Your task to perform on an android device: Search for "lenovo thinkpad" on newegg, select the first entry, and add it to the cart. Image 0: 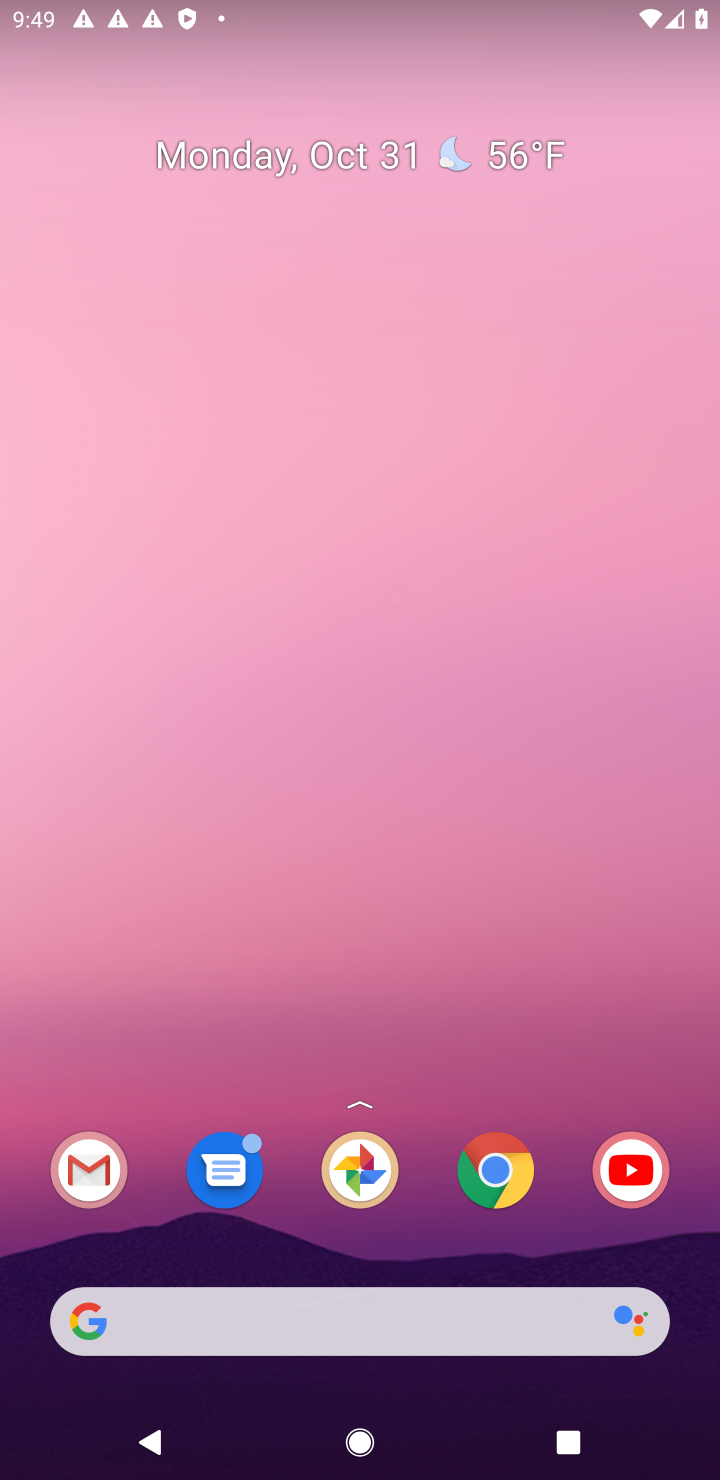
Step 0: click (346, 1299)
Your task to perform on an android device: Search for "lenovo thinkpad" on newegg, select the first entry, and add it to the cart. Image 1: 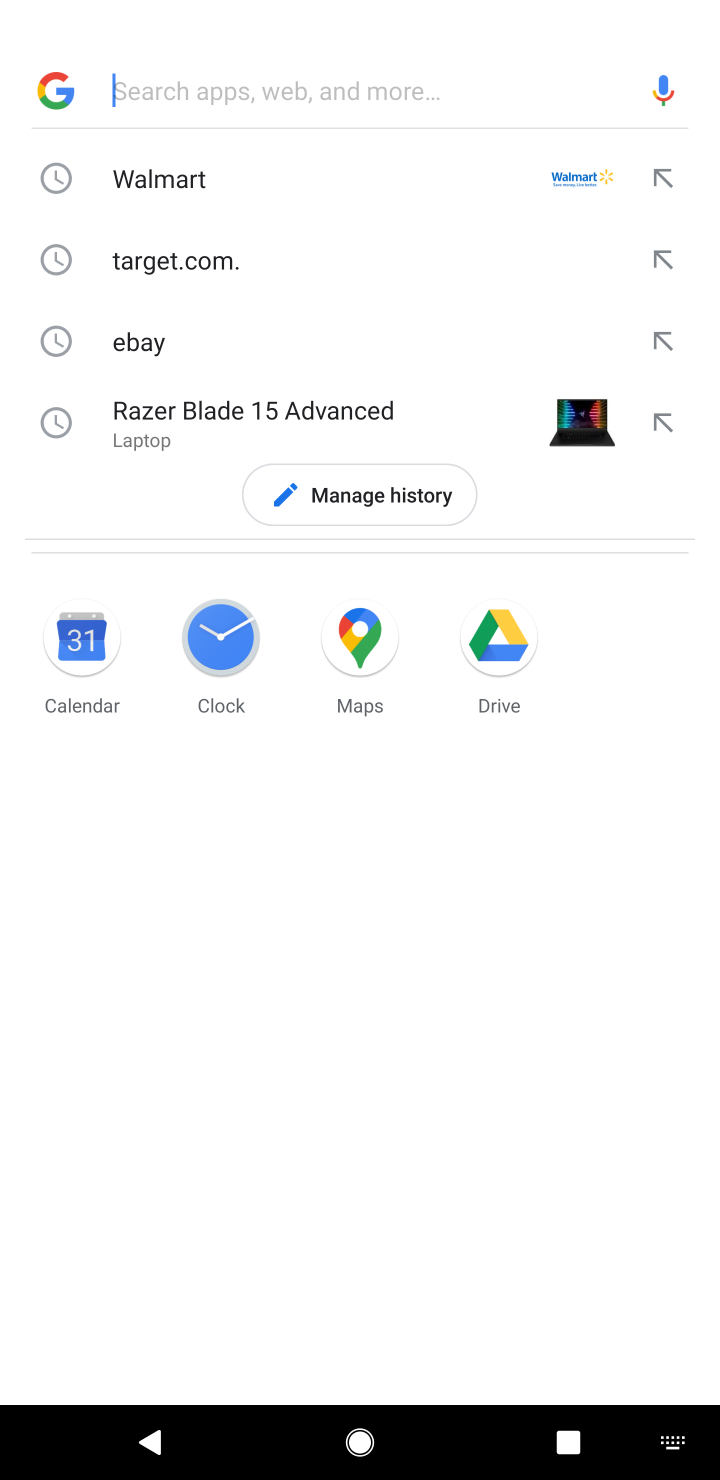
Step 1: type "newegg"
Your task to perform on an android device: Search for "lenovo thinkpad" on newegg, select the first entry, and add it to the cart. Image 2: 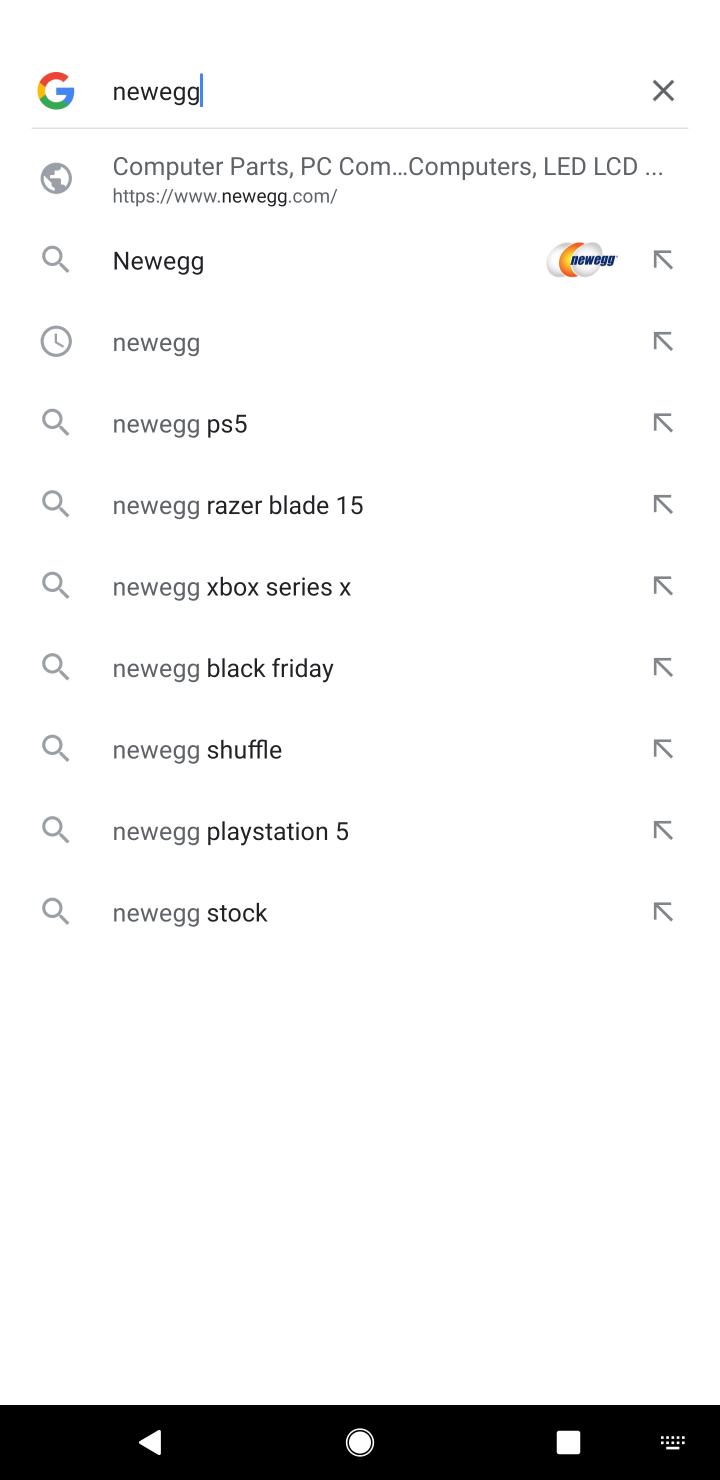
Step 2: click (248, 204)
Your task to perform on an android device: Search for "lenovo thinkpad" on newegg, select the first entry, and add it to the cart. Image 3: 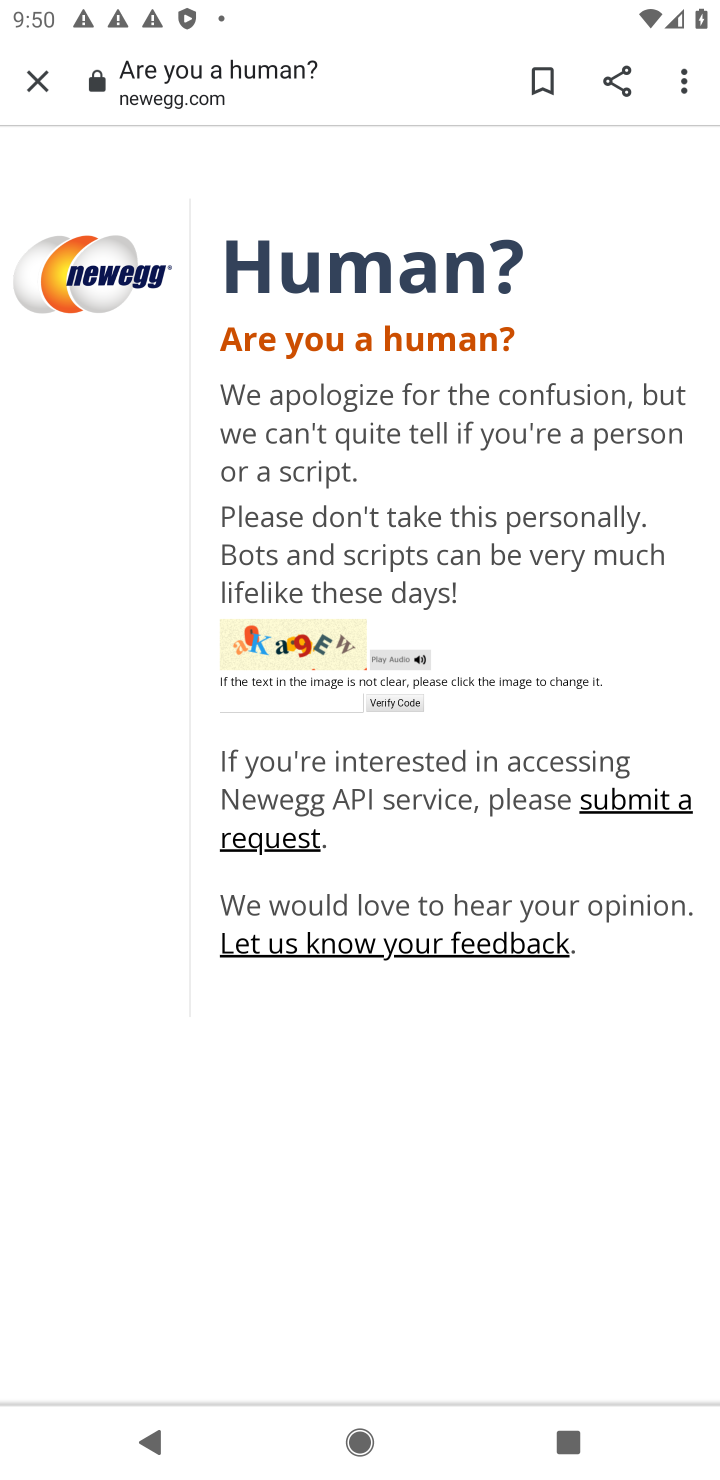
Step 3: click (295, 696)
Your task to perform on an android device: Search for "lenovo thinkpad" on newegg, select the first entry, and add it to the cart. Image 4: 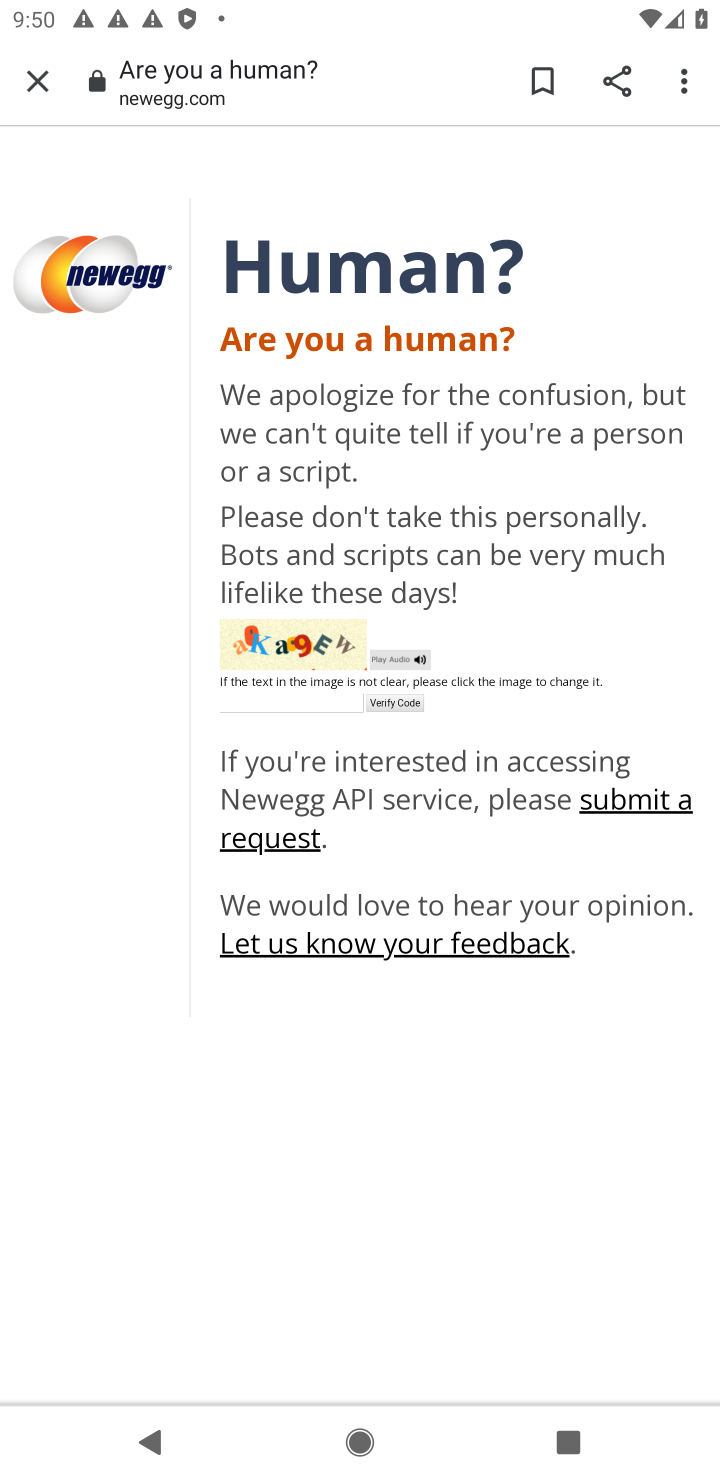
Step 4: click (291, 710)
Your task to perform on an android device: Search for "lenovo thinkpad" on newegg, select the first entry, and add it to the cart. Image 5: 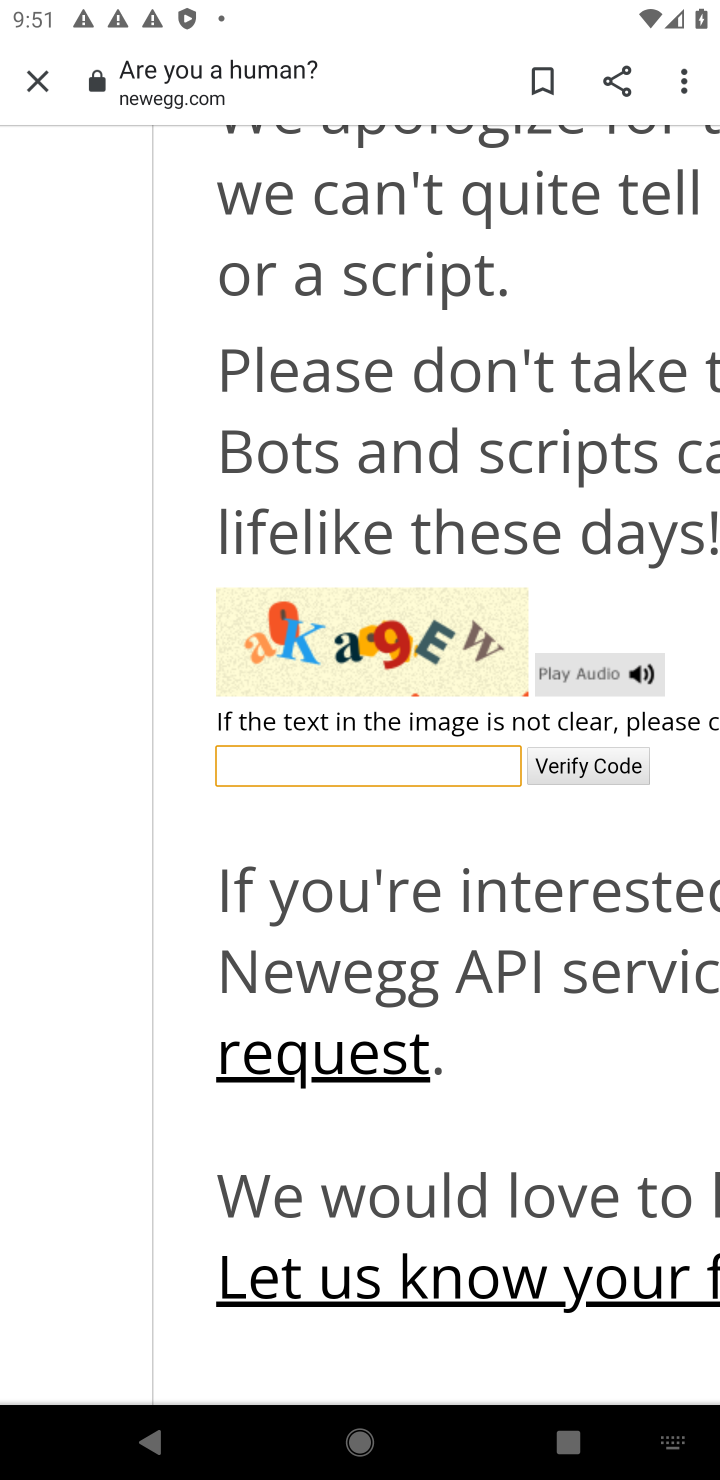
Step 5: type "aKa9EW"
Your task to perform on an android device: Search for "lenovo thinkpad" on newegg, select the first entry, and add it to the cart. Image 6: 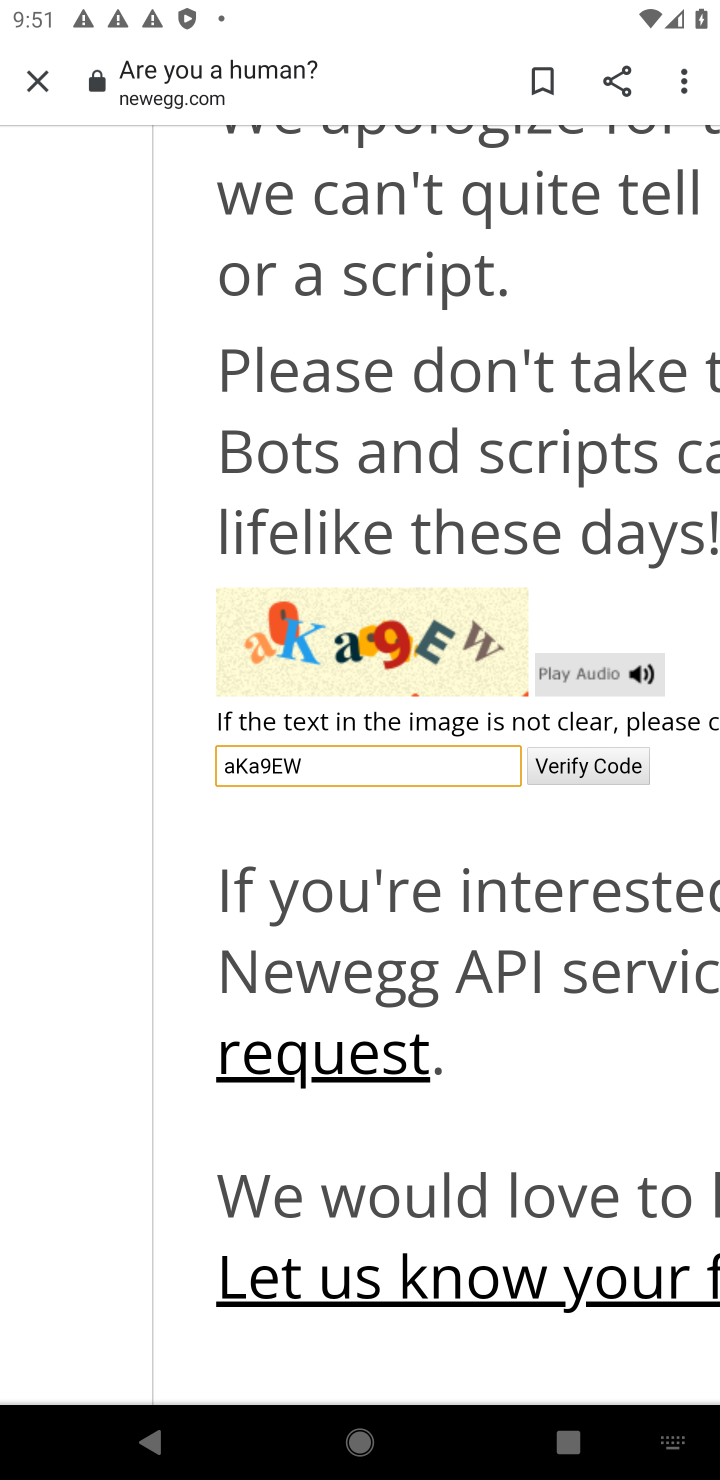
Step 6: click (570, 763)
Your task to perform on an android device: Search for "lenovo thinkpad" on newegg, select the first entry, and add it to the cart. Image 7: 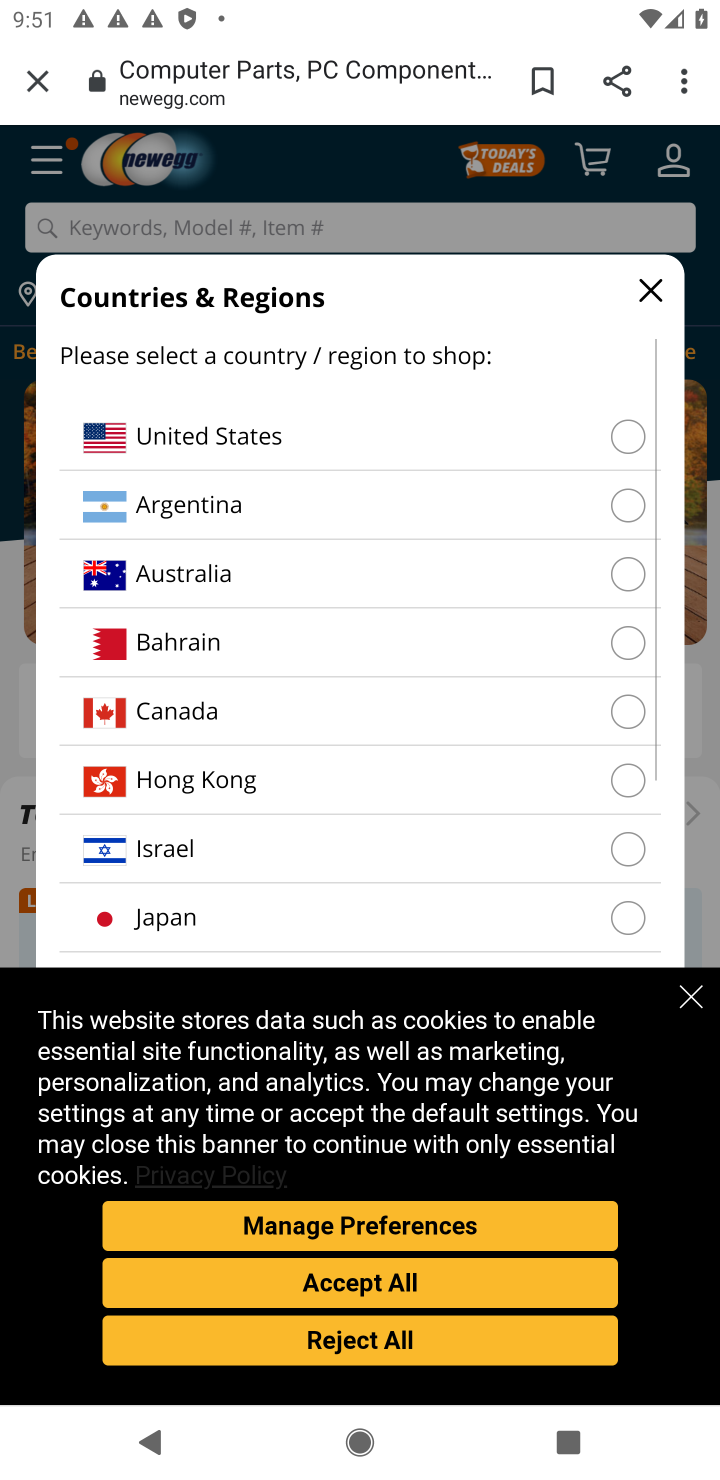
Step 7: click (699, 997)
Your task to perform on an android device: Search for "lenovo thinkpad" on newegg, select the first entry, and add it to the cart. Image 8: 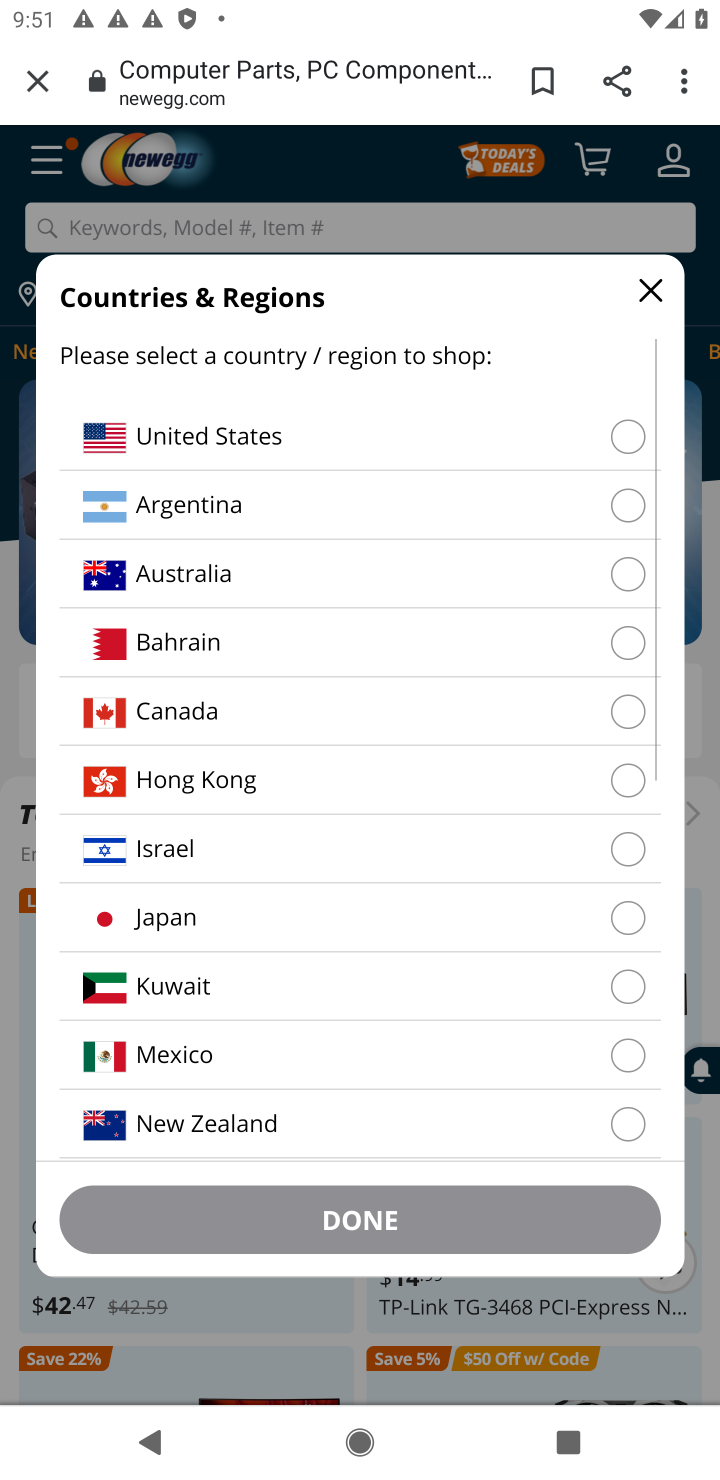
Step 8: click (634, 432)
Your task to perform on an android device: Search for "lenovo thinkpad" on newegg, select the first entry, and add it to the cart. Image 9: 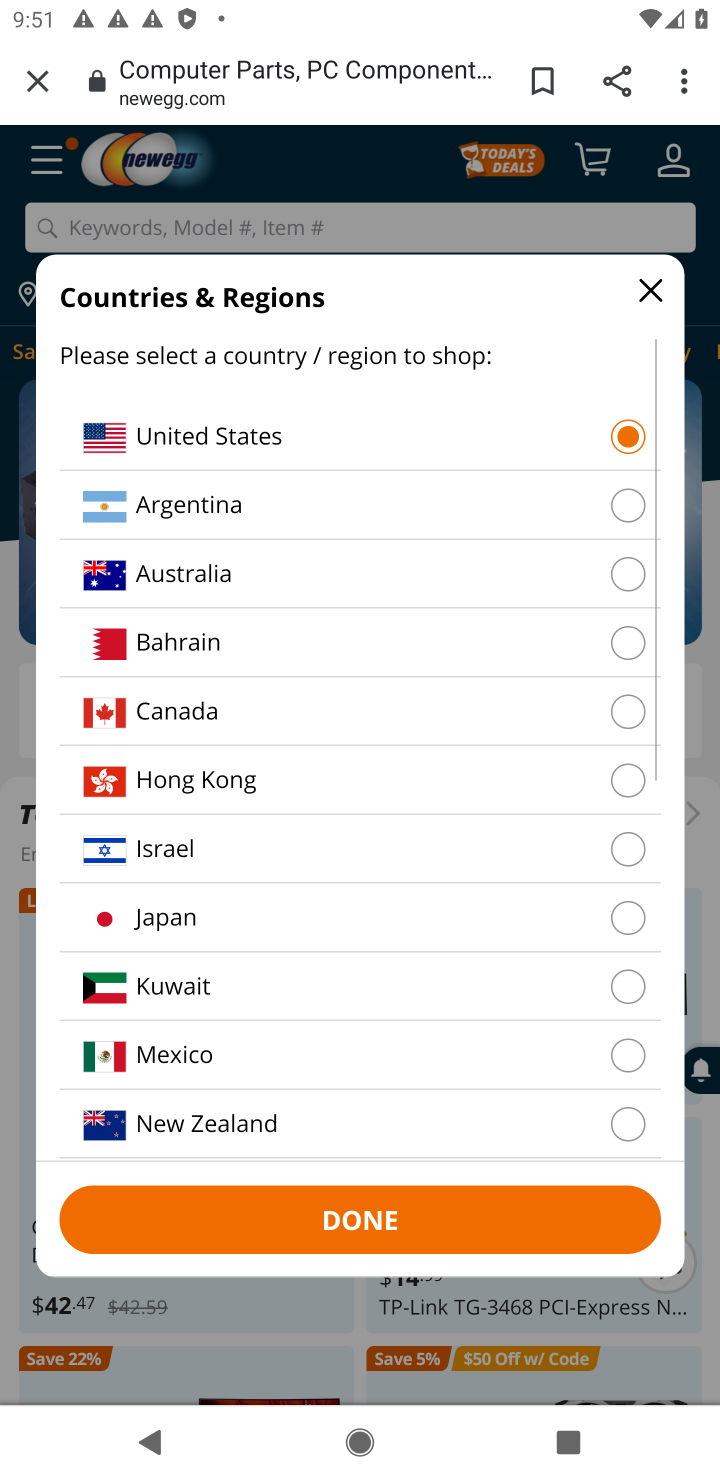
Step 9: click (378, 1240)
Your task to perform on an android device: Search for "lenovo thinkpad" on newegg, select the first entry, and add it to the cart. Image 10: 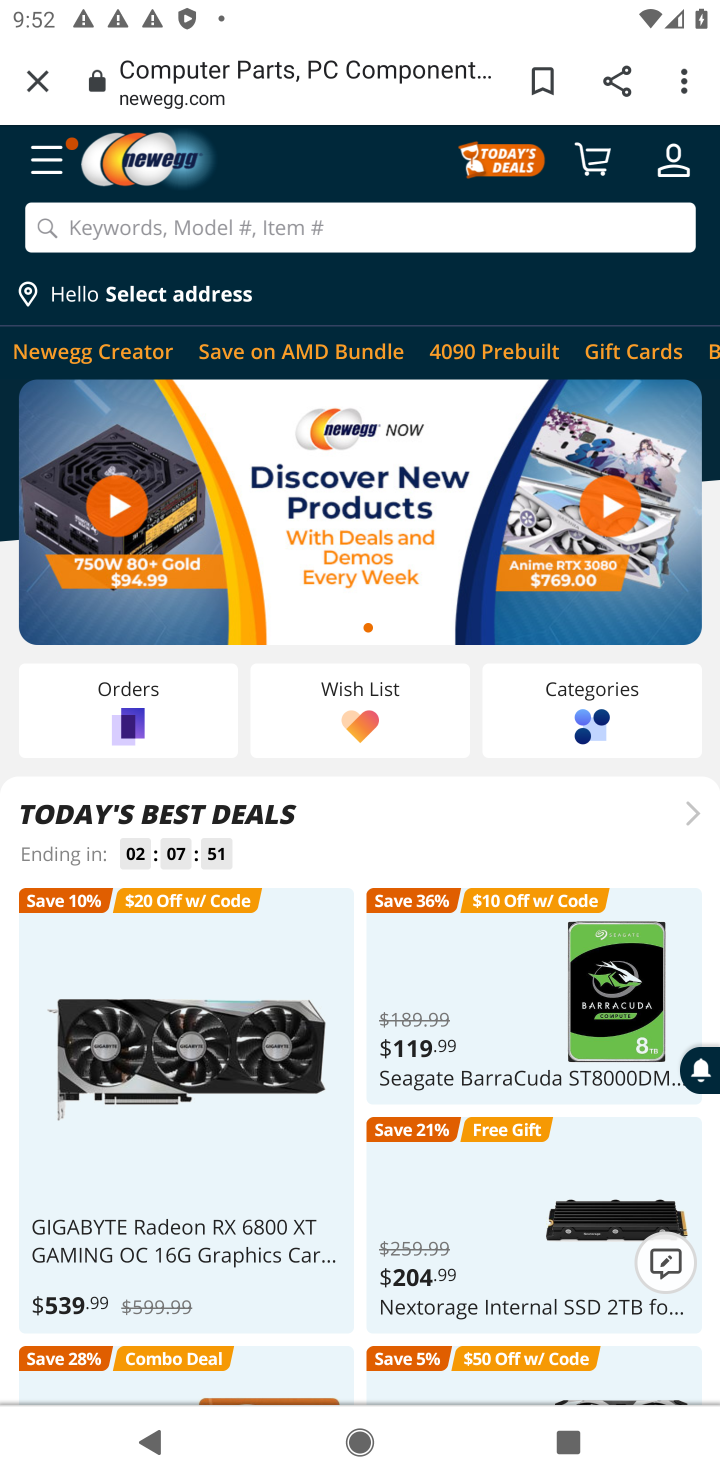
Step 10: drag from (318, 1370) to (556, 664)
Your task to perform on an android device: Search for "lenovo thinkpad" on newegg, select the first entry, and add it to the cart. Image 11: 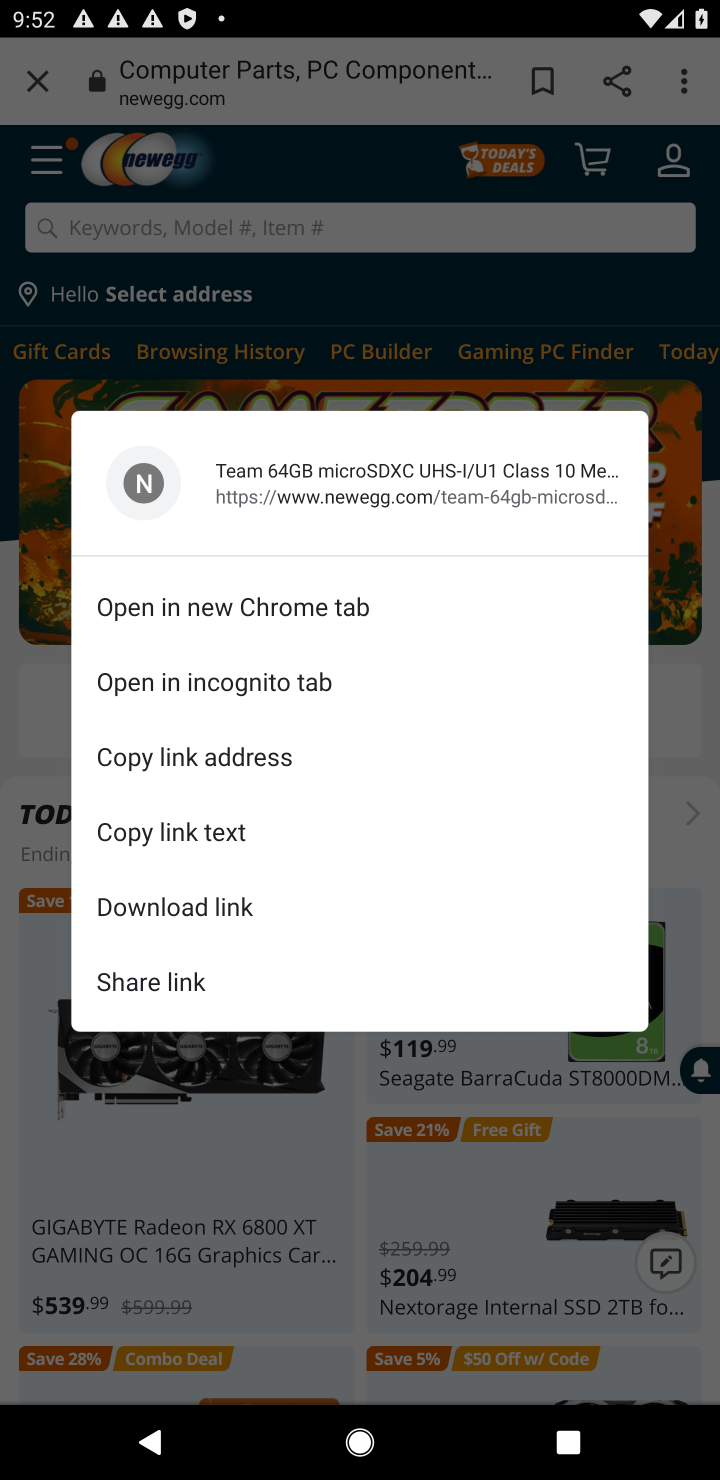
Step 11: click (347, 209)
Your task to perform on an android device: Search for "lenovo thinkpad" on newegg, select the first entry, and add it to the cart. Image 12: 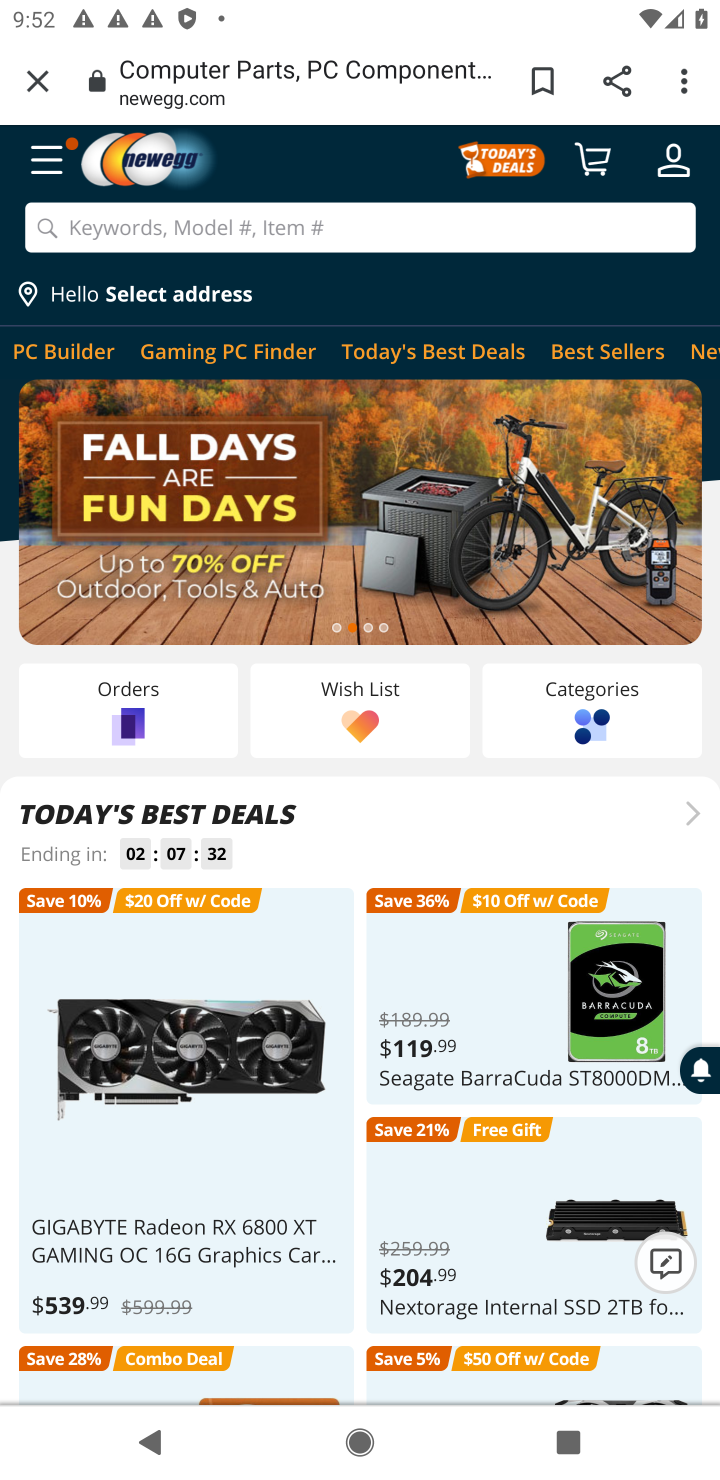
Step 12: click (313, 218)
Your task to perform on an android device: Search for "lenovo thinkpad" on newegg, select the first entry, and add it to the cart. Image 13: 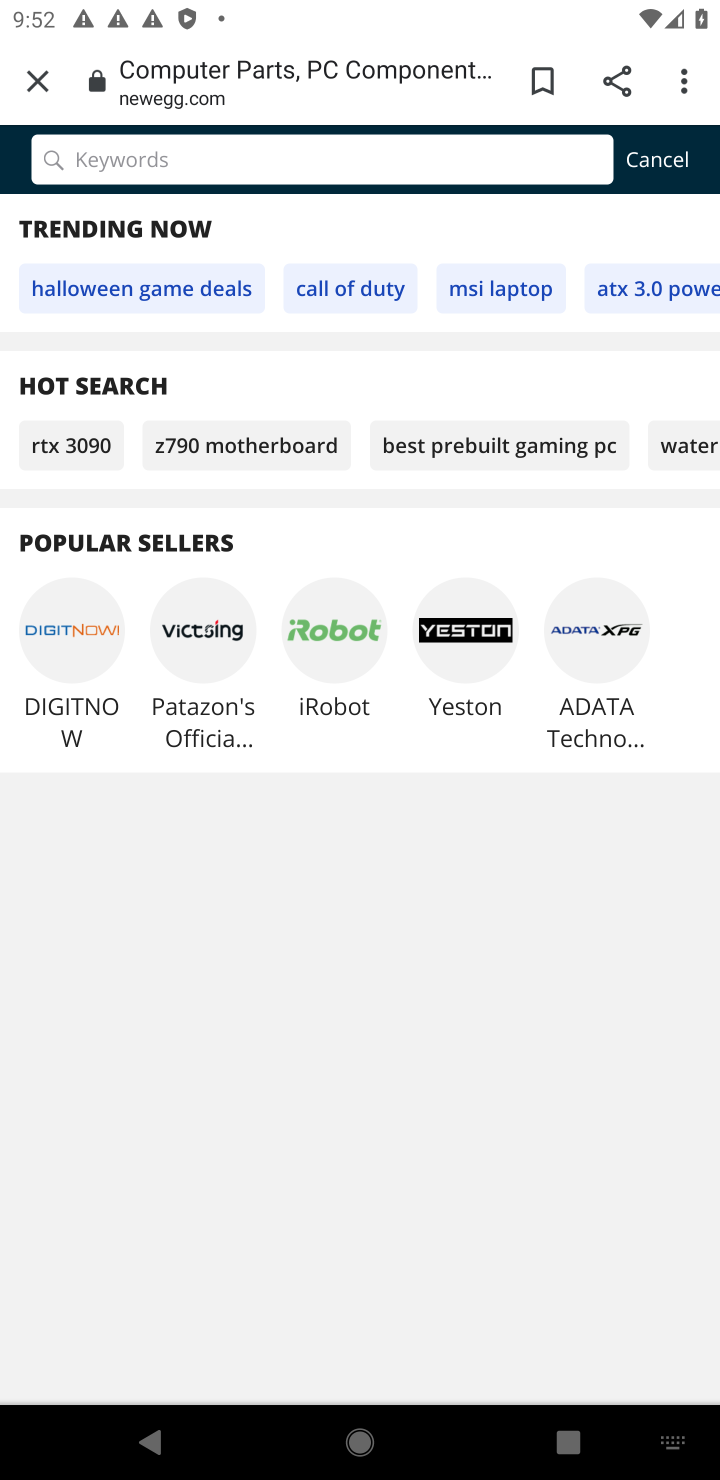
Step 13: click (313, 218)
Your task to perform on an android device: Search for "lenovo thinkpad" on newegg, select the first entry, and add it to the cart. Image 14: 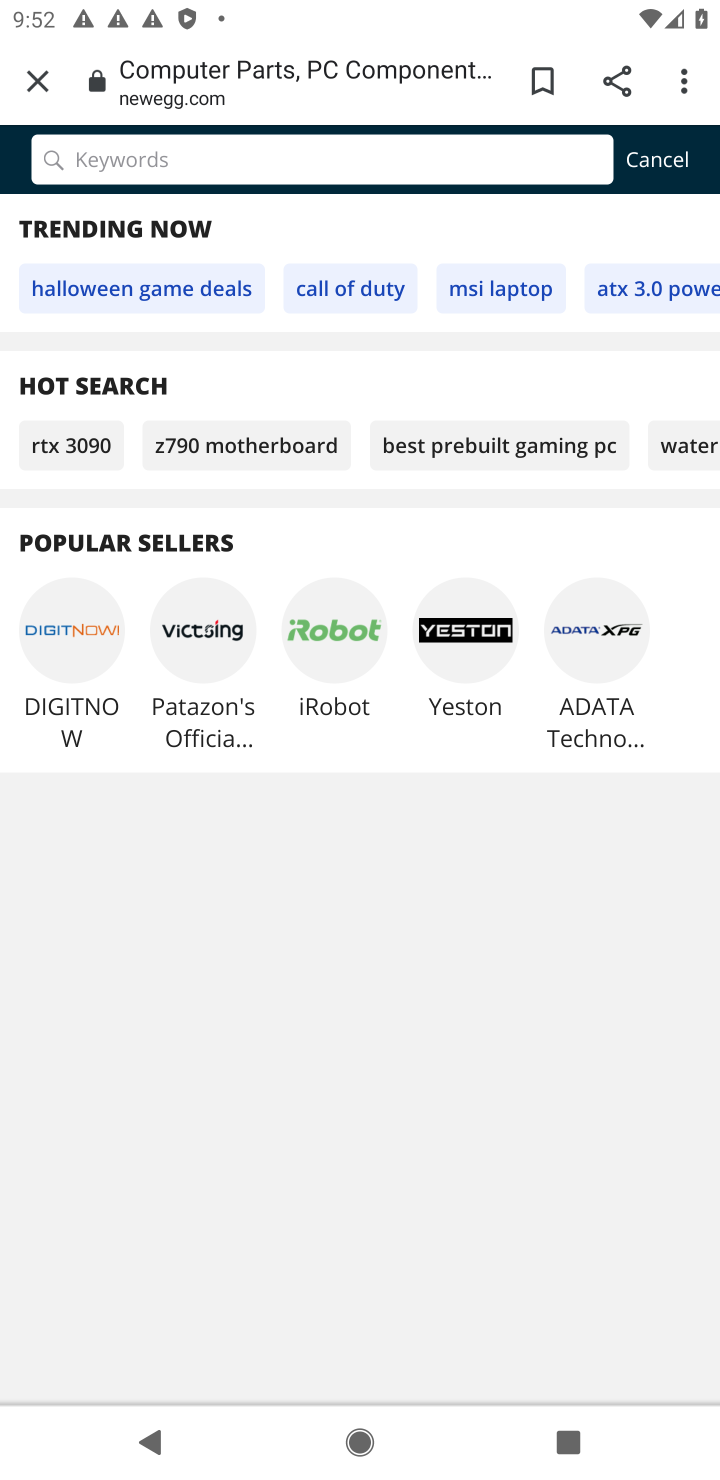
Step 14: type "newegg"
Your task to perform on an android device: Search for "lenovo thinkpad" on newegg, select the first entry, and add it to the cart. Image 15: 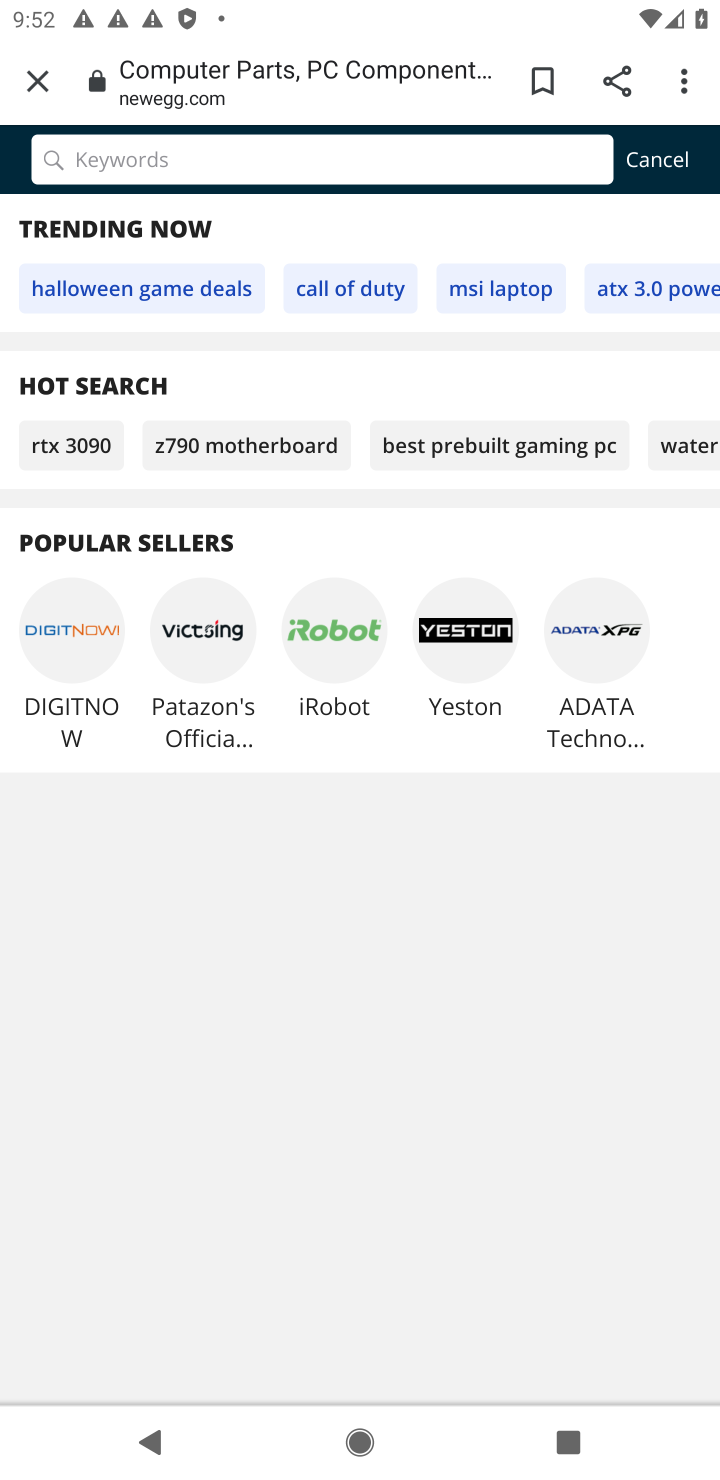
Step 15: click (417, 146)
Your task to perform on an android device: Search for "lenovo thinkpad" on newegg, select the first entry, and add it to the cart. Image 16: 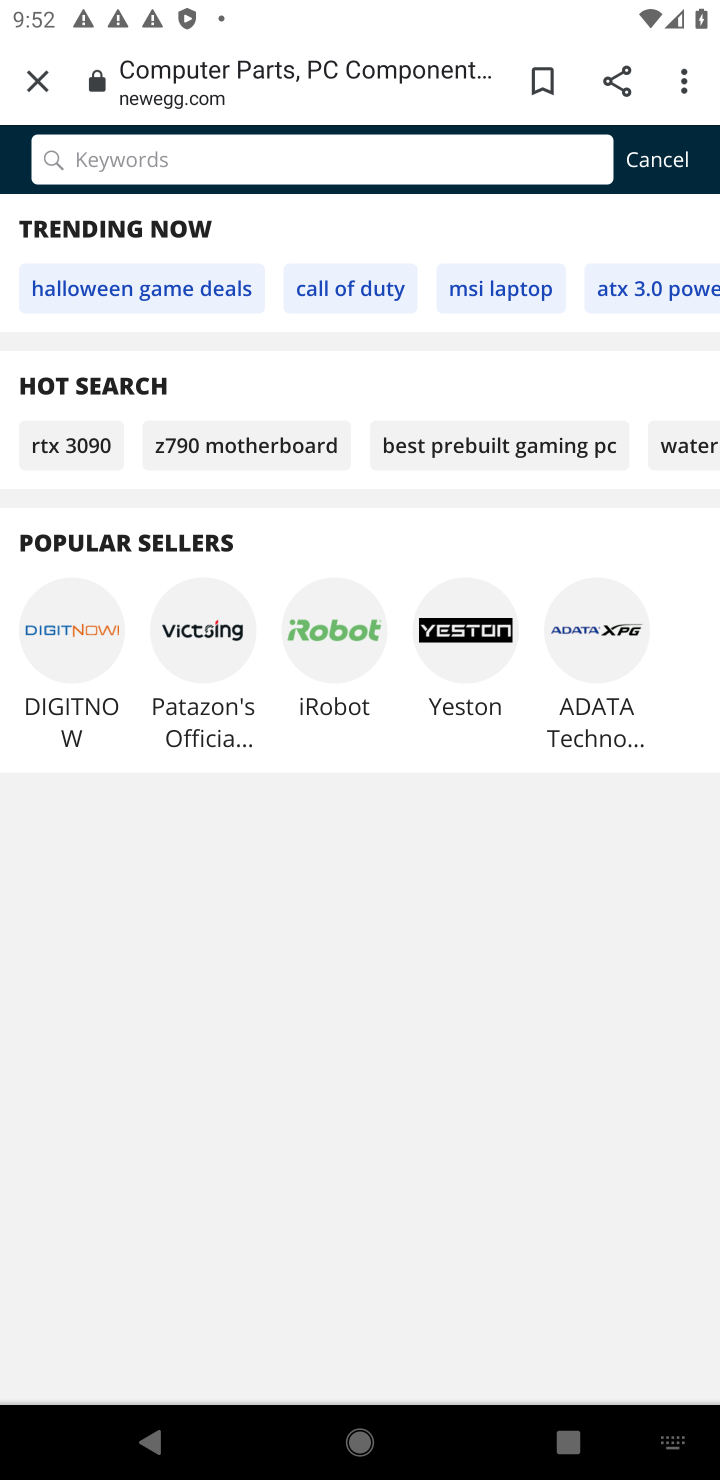
Step 16: type "lenovo thinkpad"
Your task to perform on an android device: Search for "lenovo thinkpad" on newegg, select the first entry, and add it to the cart. Image 17: 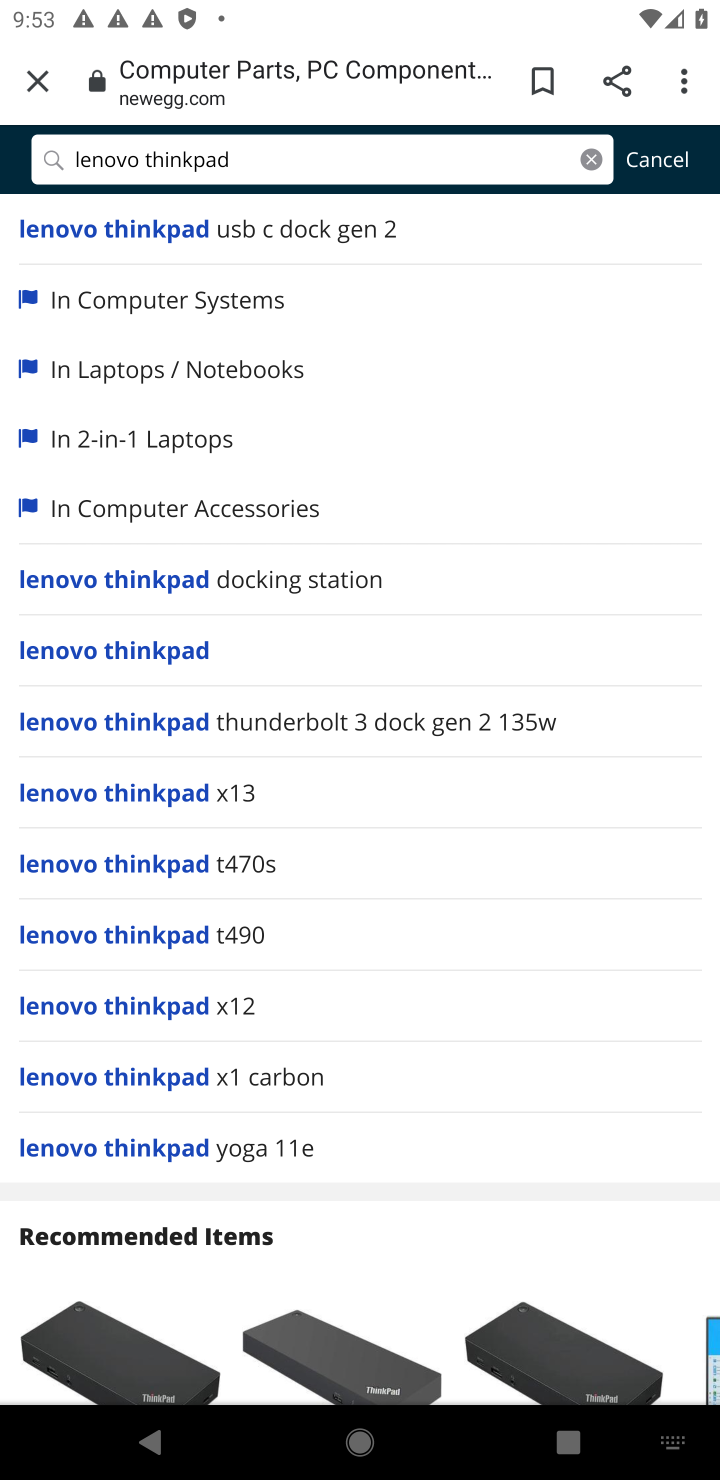
Step 17: click (185, 224)
Your task to perform on an android device: Search for "lenovo thinkpad" on newegg, select the first entry, and add it to the cart. Image 18: 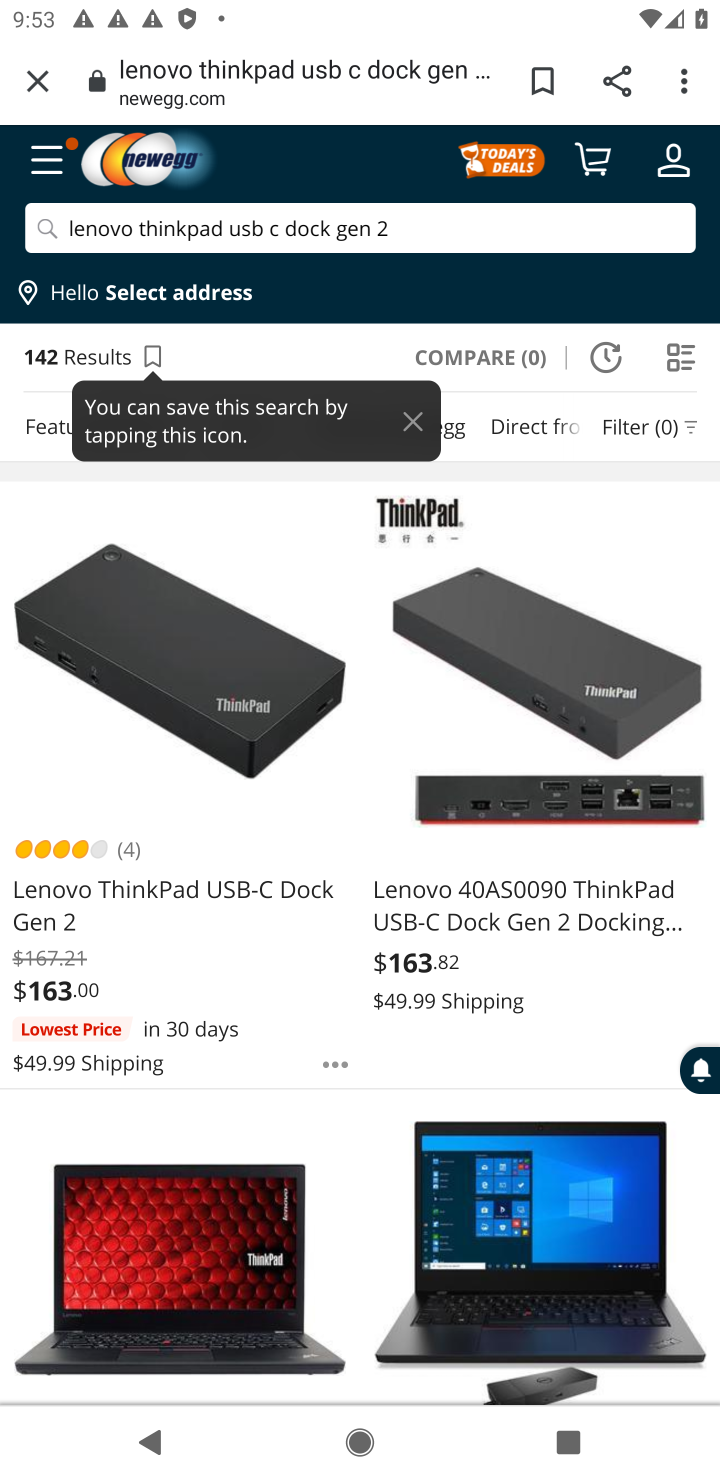
Step 18: click (152, 590)
Your task to perform on an android device: Search for "lenovo thinkpad" on newegg, select the first entry, and add it to the cart. Image 19: 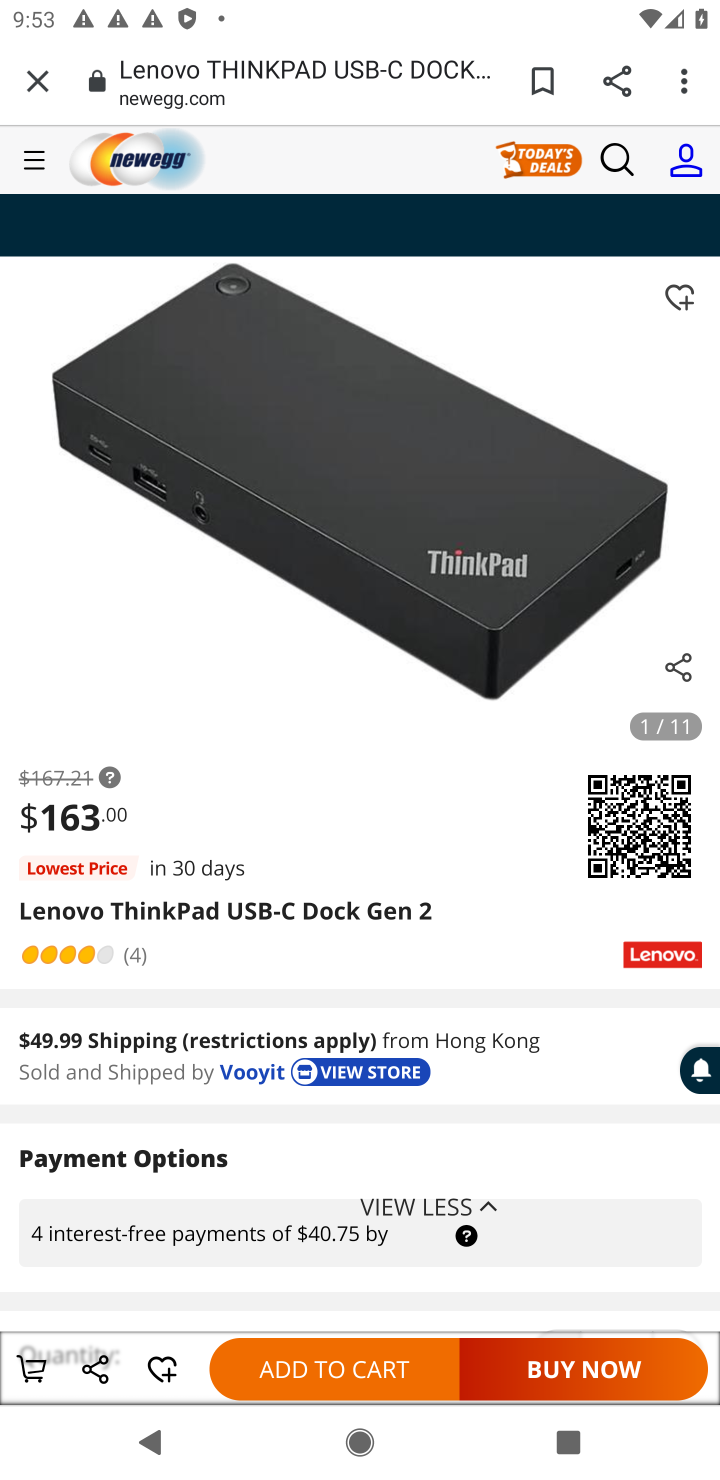
Step 19: click (357, 1370)
Your task to perform on an android device: Search for "lenovo thinkpad" on newegg, select the first entry, and add it to the cart. Image 20: 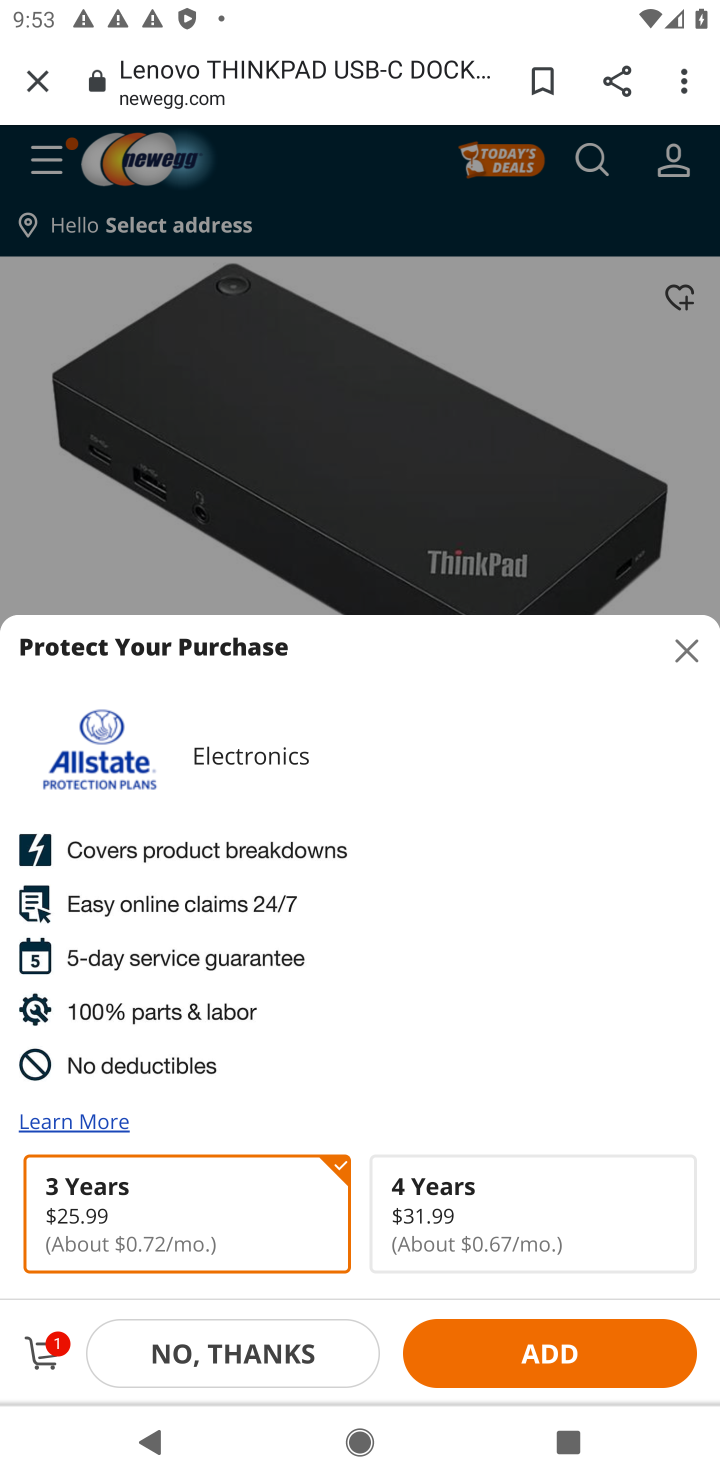
Step 20: click (170, 1339)
Your task to perform on an android device: Search for "lenovo thinkpad" on newegg, select the first entry, and add it to the cart. Image 21: 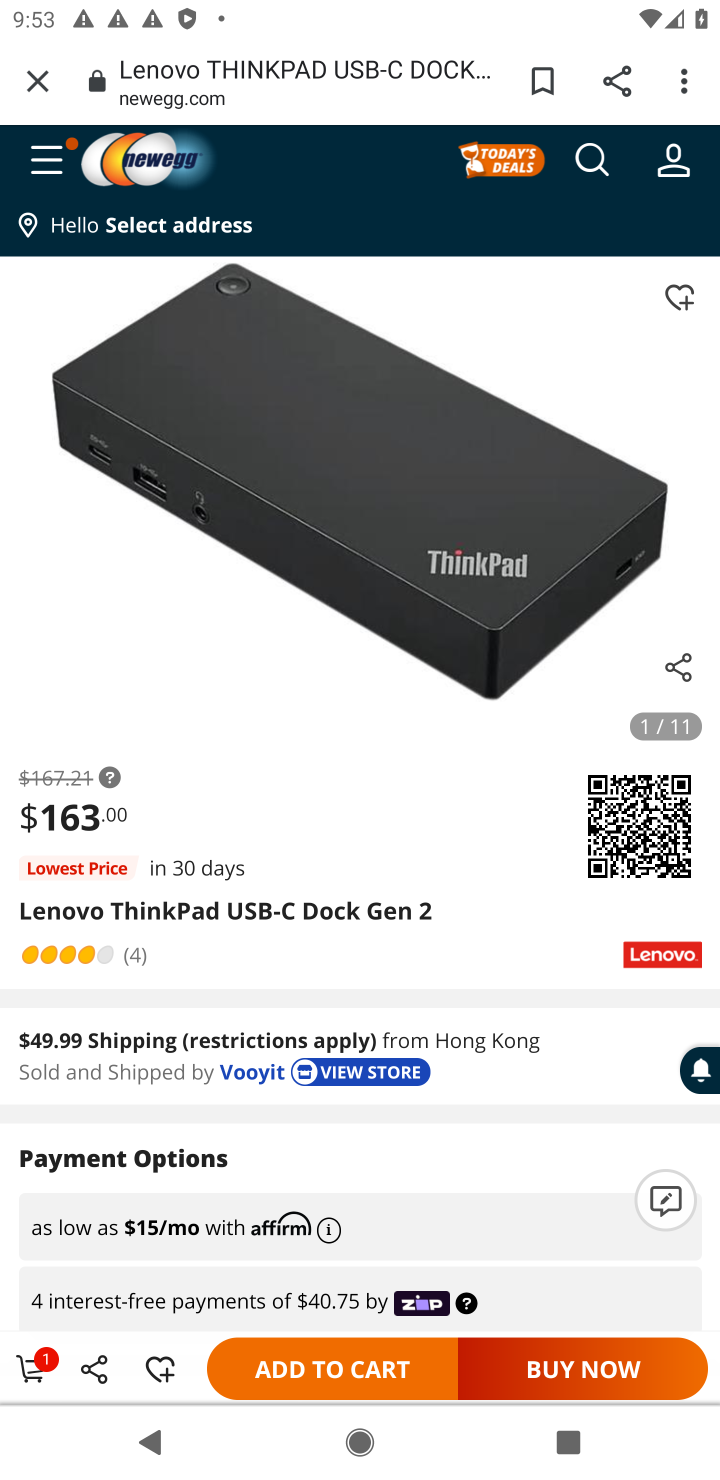
Step 21: task complete